Your task to perform on an android device: check data usage Image 0: 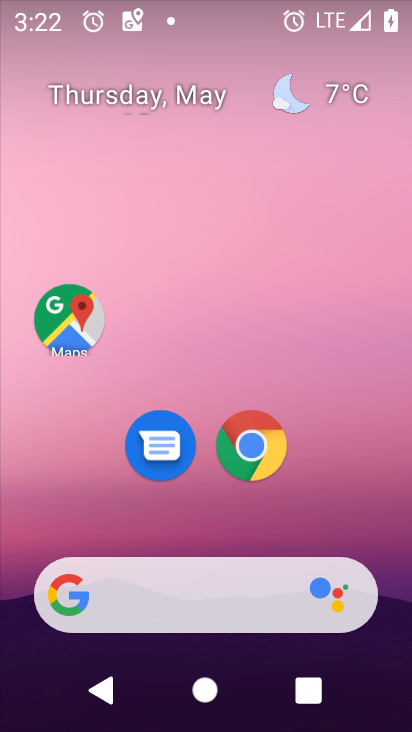
Step 0: drag from (352, 523) to (366, 12)
Your task to perform on an android device: check data usage Image 1: 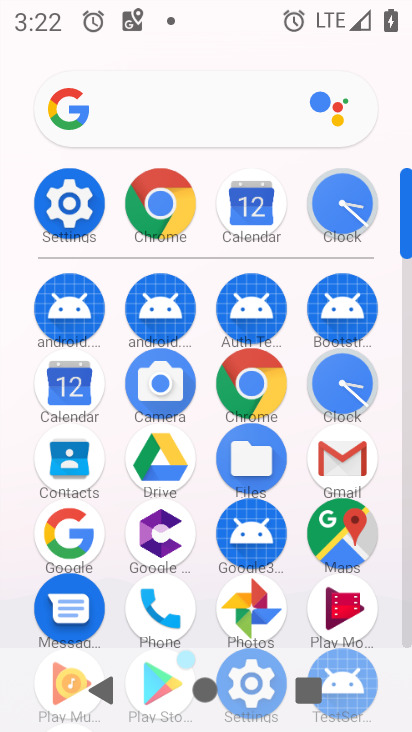
Step 1: click (73, 211)
Your task to perform on an android device: check data usage Image 2: 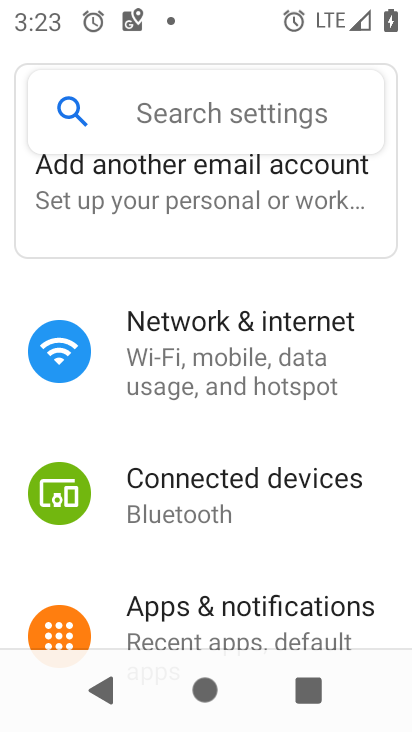
Step 2: click (211, 370)
Your task to perform on an android device: check data usage Image 3: 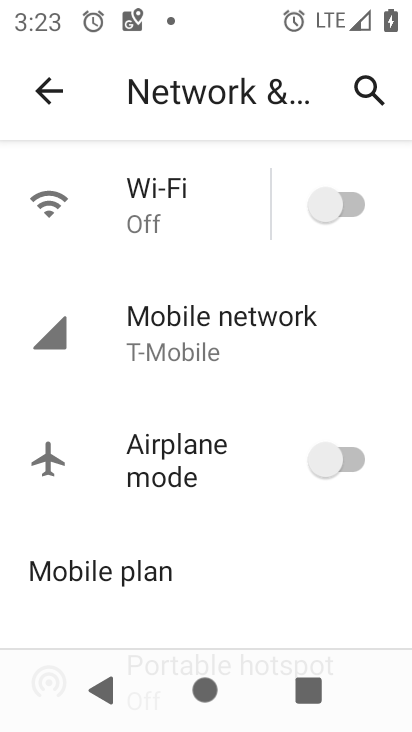
Step 3: click (186, 353)
Your task to perform on an android device: check data usage Image 4: 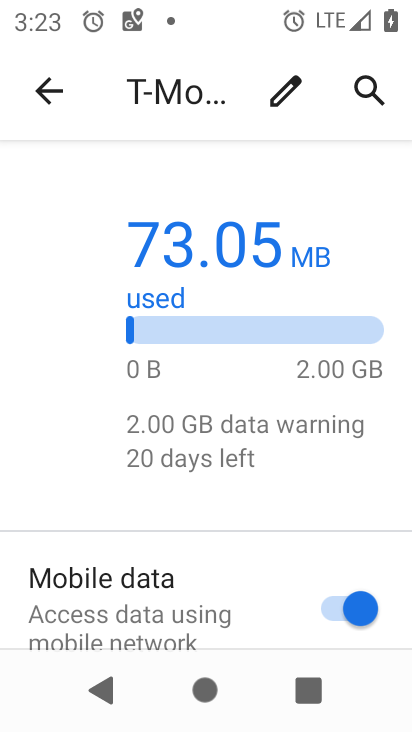
Step 4: drag from (184, 573) to (200, 241)
Your task to perform on an android device: check data usage Image 5: 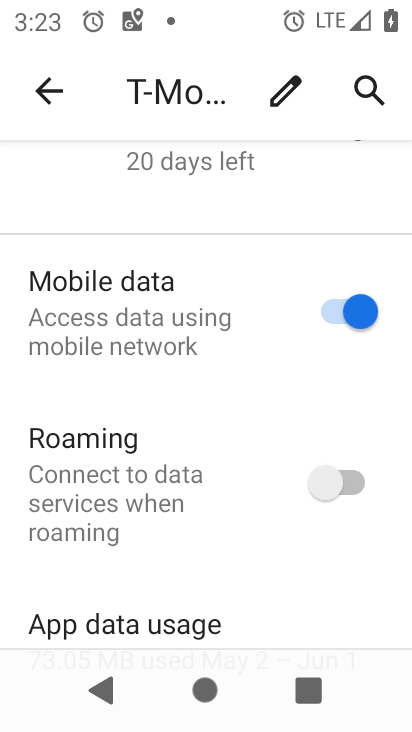
Step 5: drag from (186, 505) to (191, 215)
Your task to perform on an android device: check data usage Image 6: 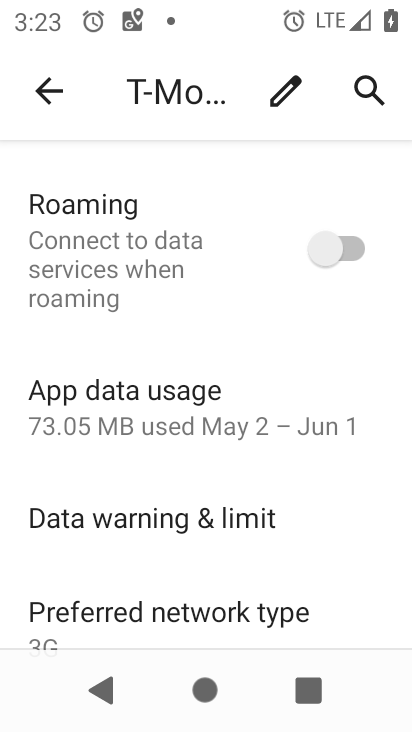
Step 6: click (160, 413)
Your task to perform on an android device: check data usage Image 7: 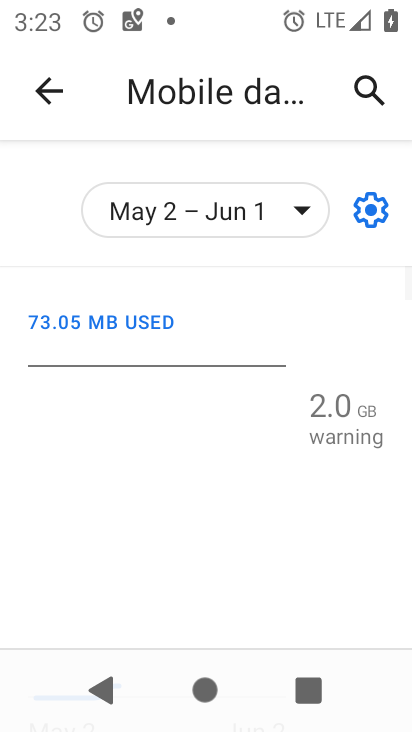
Step 7: task complete